Your task to perform on an android device: open a bookmark in the chrome app Image 0: 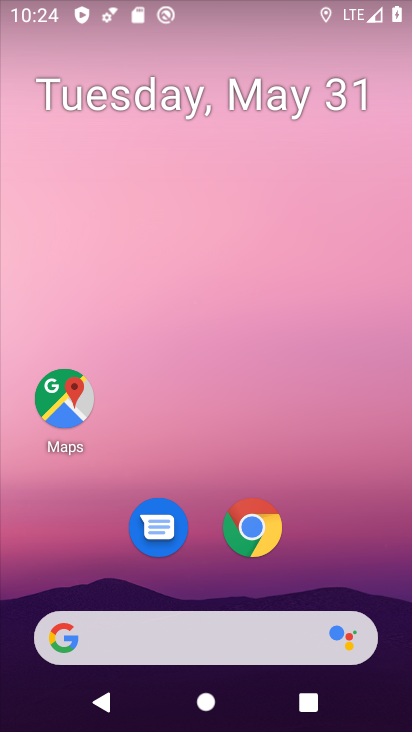
Step 0: drag from (385, 613) to (262, 169)
Your task to perform on an android device: open a bookmark in the chrome app Image 1: 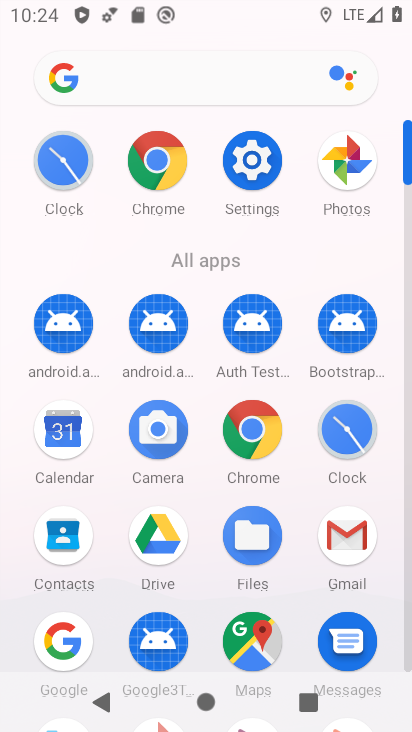
Step 1: click (172, 171)
Your task to perform on an android device: open a bookmark in the chrome app Image 2: 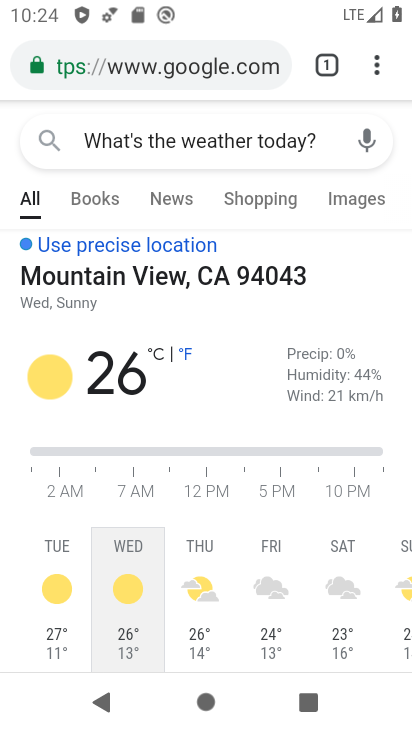
Step 2: click (387, 62)
Your task to perform on an android device: open a bookmark in the chrome app Image 3: 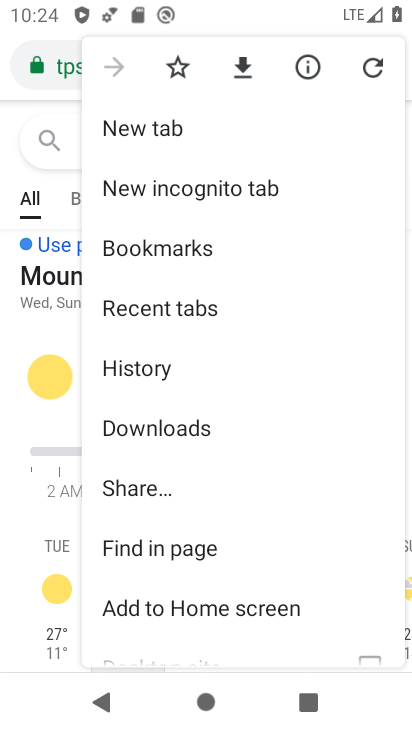
Step 3: click (288, 253)
Your task to perform on an android device: open a bookmark in the chrome app Image 4: 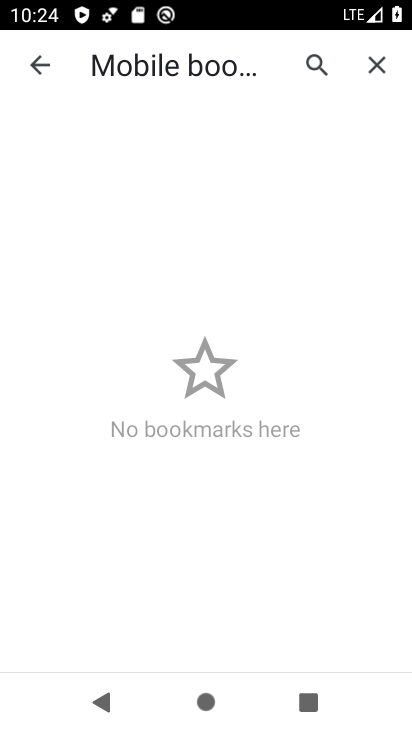
Step 4: task complete